Your task to perform on an android device: Open Amazon Image 0: 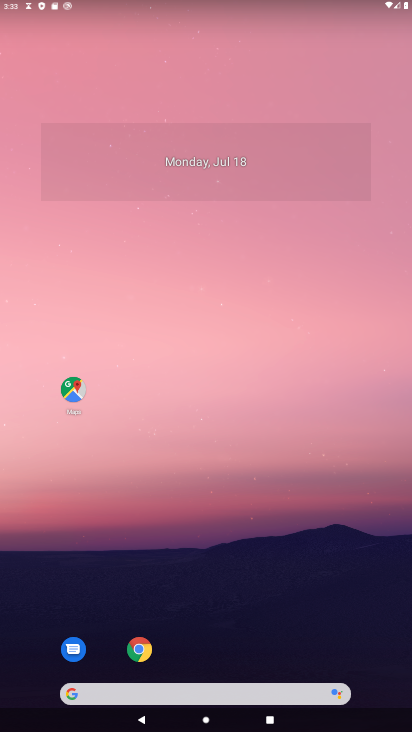
Step 0: press home button
Your task to perform on an android device: Open Amazon Image 1: 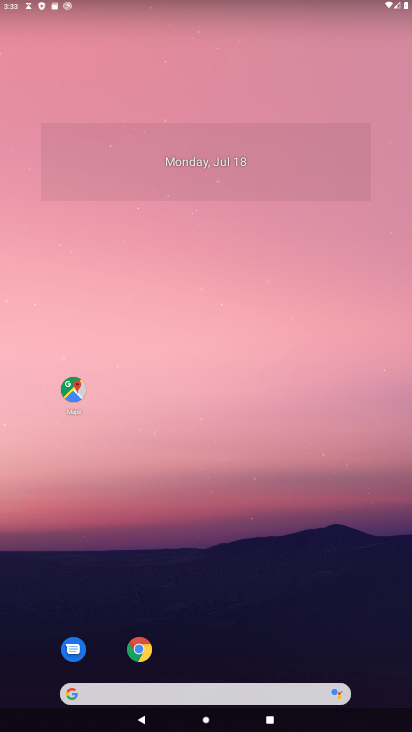
Step 1: click (71, 694)
Your task to perform on an android device: Open Amazon Image 2: 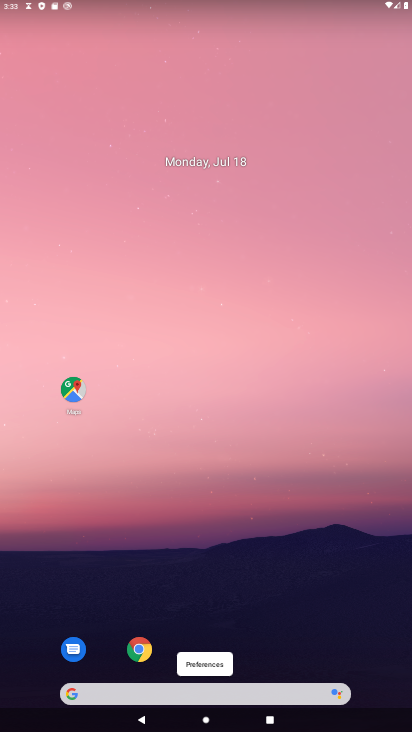
Step 2: click (71, 693)
Your task to perform on an android device: Open Amazon Image 3: 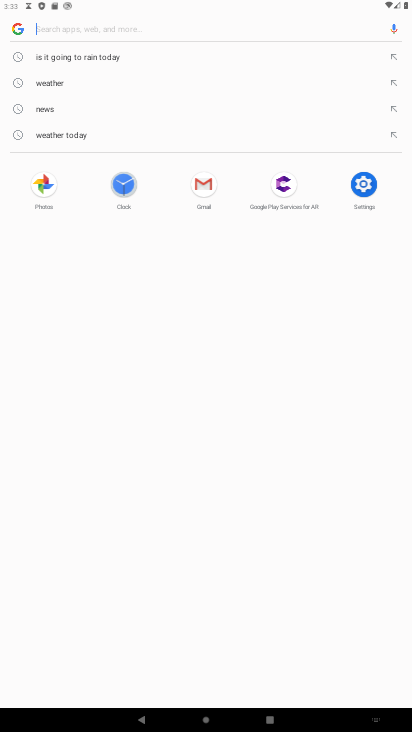
Step 3: type "Amazon"
Your task to perform on an android device: Open Amazon Image 4: 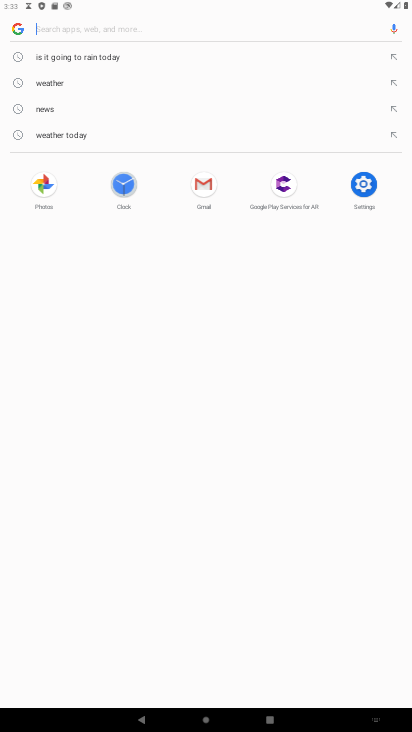
Step 4: click (74, 31)
Your task to perform on an android device: Open Amazon Image 5: 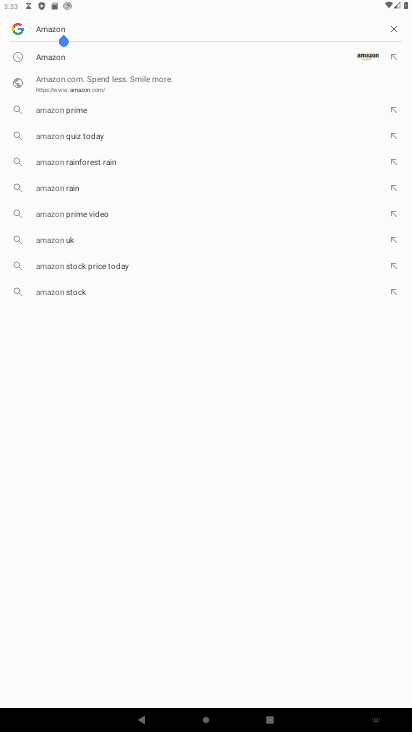
Step 5: click (366, 50)
Your task to perform on an android device: Open Amazon Image 6: 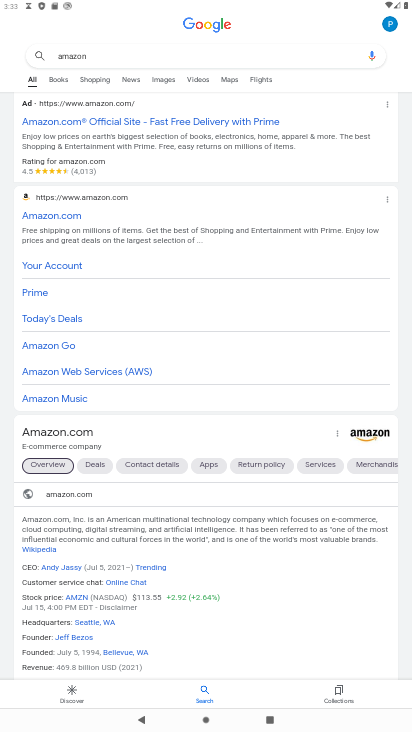
Step 6: click (47, 218)
Your task to perform on an android device: Open Amazon Image 7: 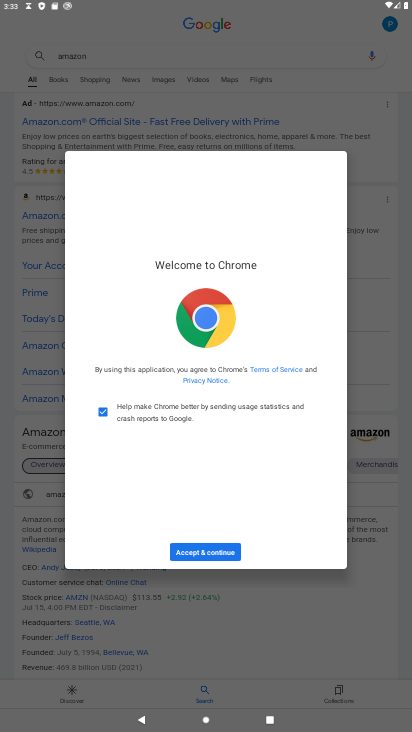
Step 7: click (221, 542)
Your task to perform on an android device: Open Amazon Image 8: 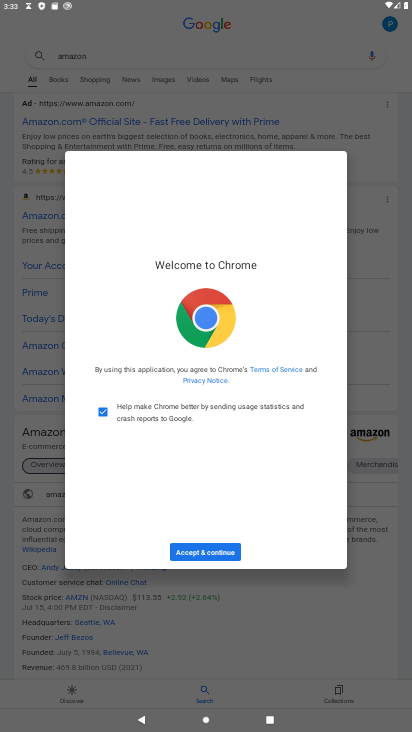
Step 8: click (215, 549)
Your task to perform on an android device: Open Amazon Image 9: 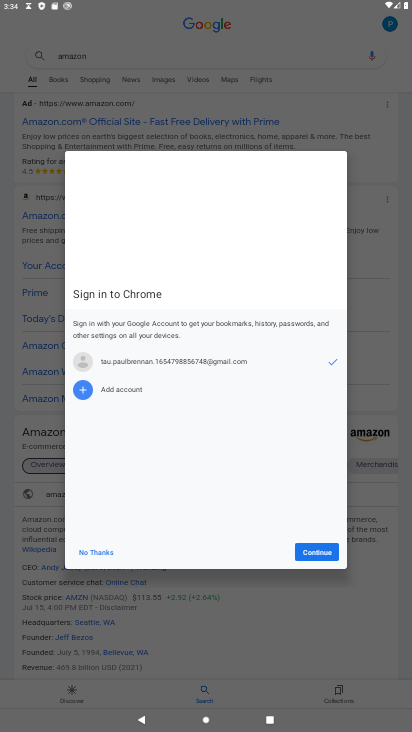
Step 9: click (318, 551)
Your task to perform on an android device: Open Amazon Image 10: 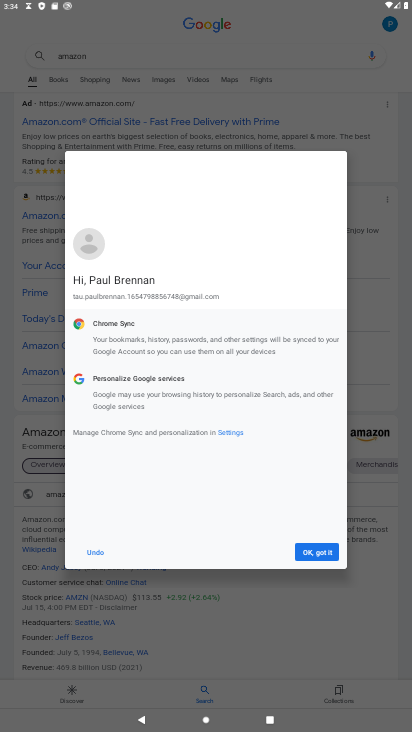
Step 10: click (318, 551)
Your task to perform on an android device: Open Amazon Image 11: 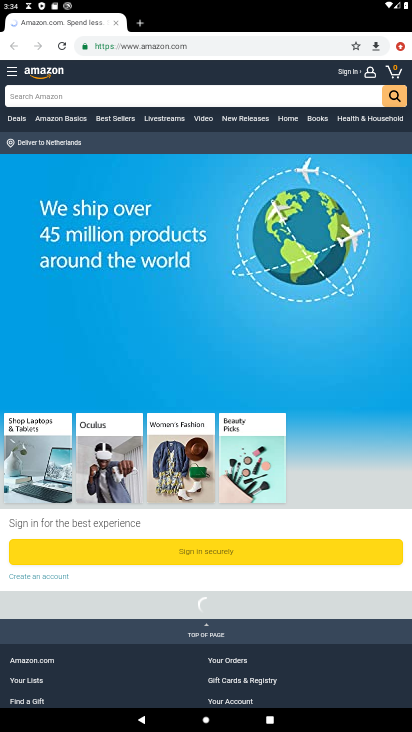
Step 11: task complete